Your task to perform on an android device: Show me popular games on the Play Store Image 0: 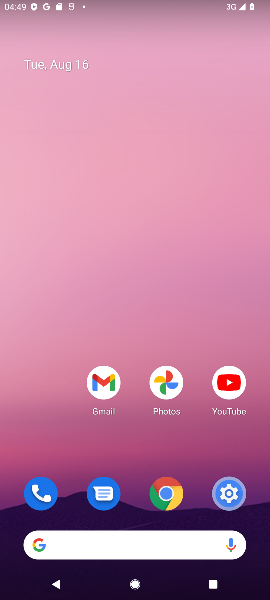
Step 0: press home button
Your task to perform on an android device: Show me popular games on the Play Store Image 1: 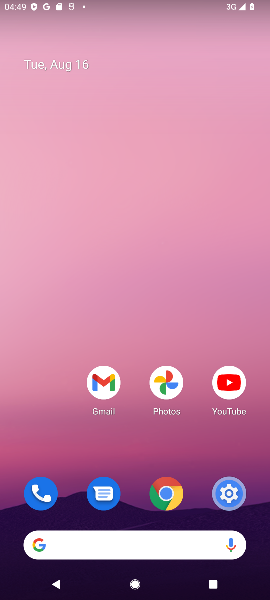
Step 1: drag from (63, 454) to (72, 117)
Your task to perform on an android device: Show me popular games on the Play Store Image 2: 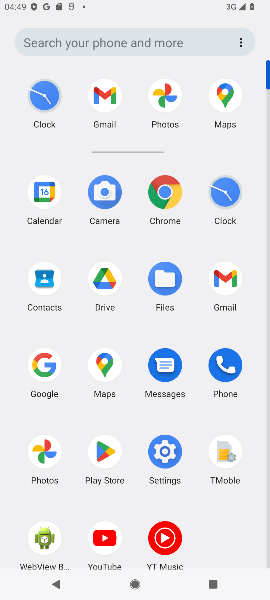
Step 2: click (96, 463)
Your task to perform on an android device: Show me popular games on the Play Store Image 3: 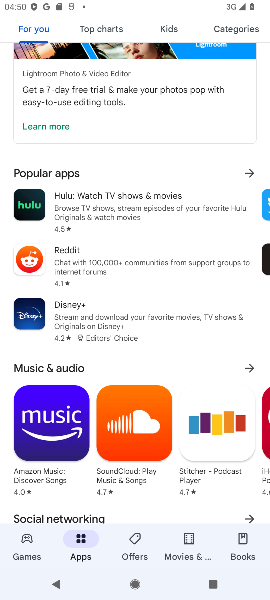
Step 3: click (25, 547)
Your task to perform on an android device: Show me popular games on the Play Store Image 4: 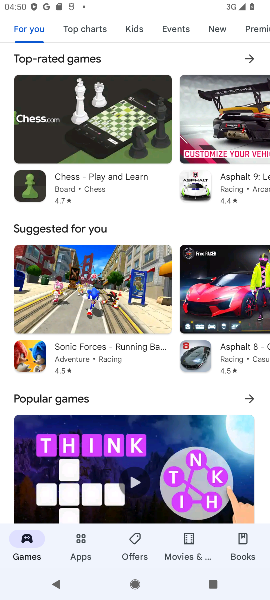
Step 4: task complete